Your task to perform on an android device: check storage Image 0: 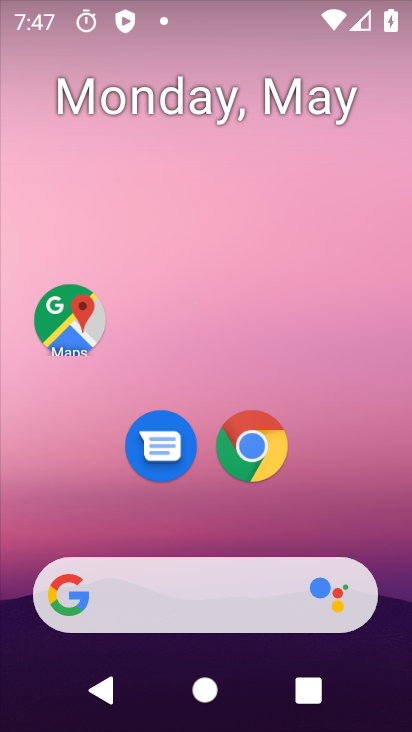
Step 0: drag from (330, 527) to (251, 8)
Your task to perform on an android device: check storage Image 1: 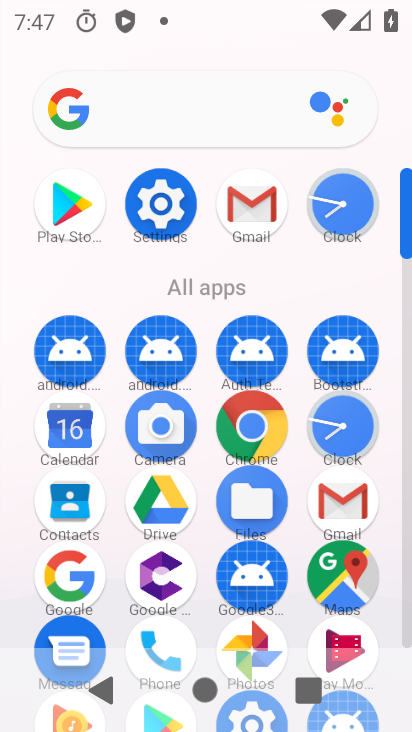
Step 1: click (152, 221)
Your task to perform on an android device: check storage Image 2: 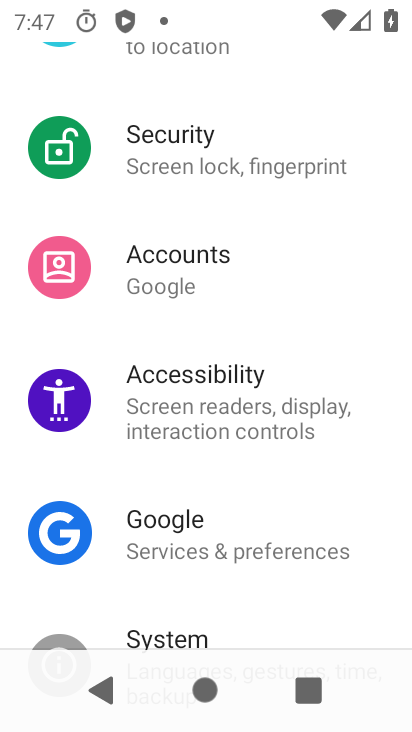
Step 2: drag from (319, 189) to (343, 435)
Your task to perform on an android device: check storage Image 3: 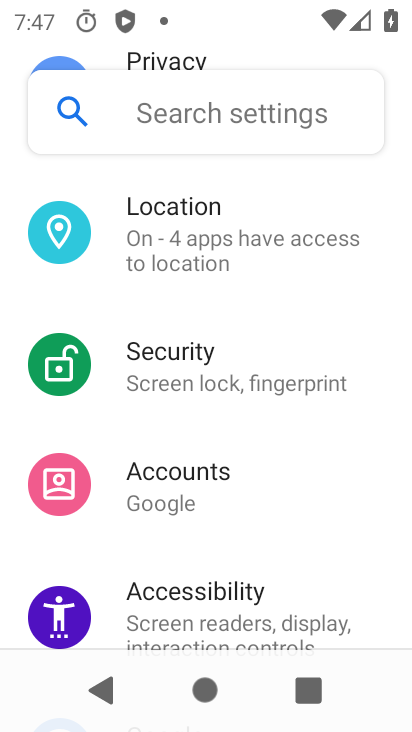
Step 3: drag from (285, 284) to (298, 536)
Your task to perform on an android device: check storage Image 4: 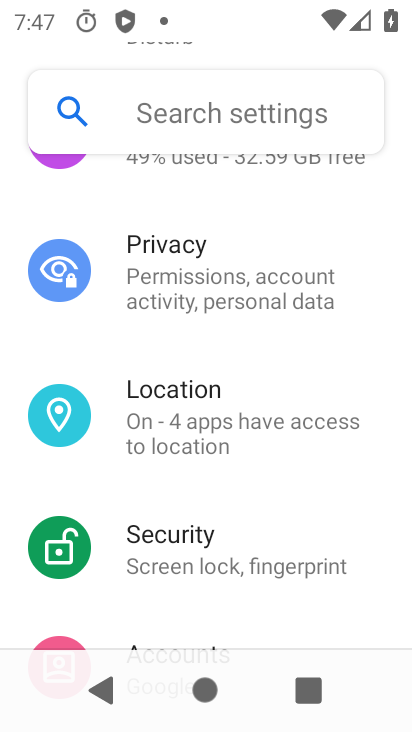
Step 4: drag from (269, 297) to (296, 584)
Your task to perform on an android device: check storage Image 5: 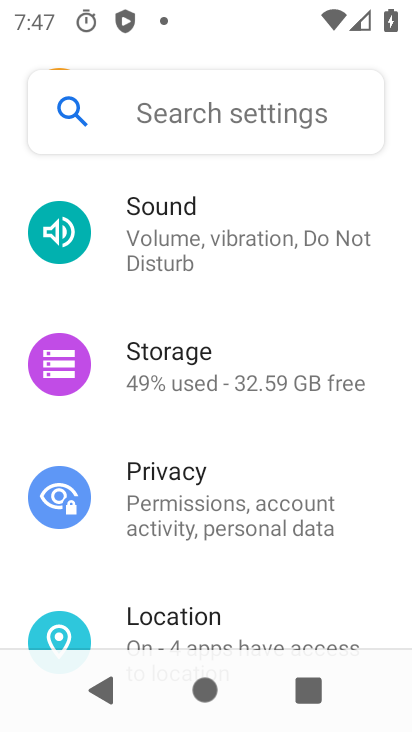
Step 5: click (193, 371)
Your task to perform on an android device: check storage Image 6: 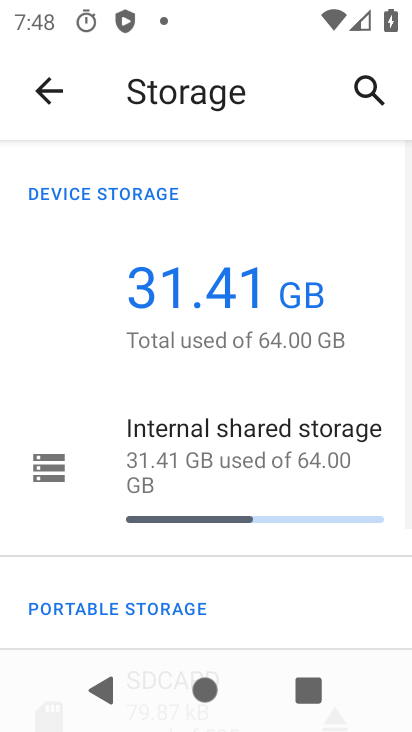
Step 6: click (204, 467)
Your task to perform on an android device: check storage Image 7: 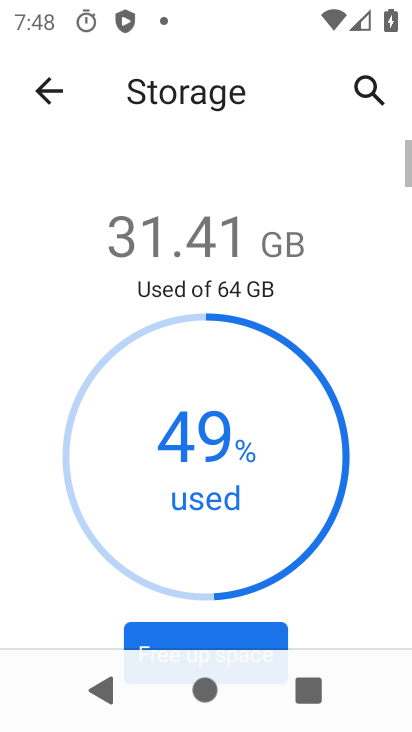
Step 7: task complete